Your task to perform on an android device: turn on translation in the chrome app Image 0: 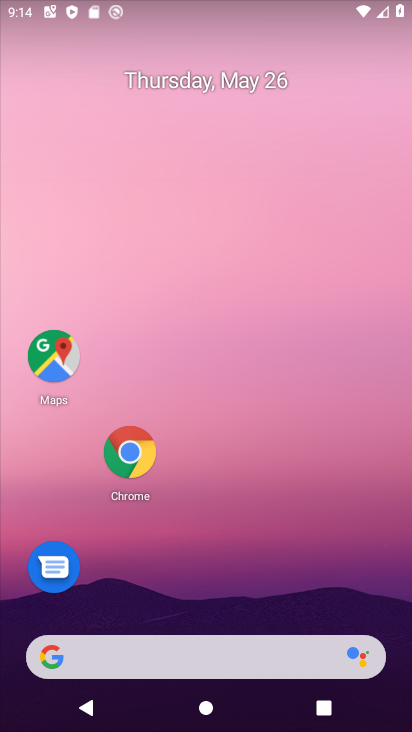
Step 0: press home button
Your task to perform on an android device: turn on translation in the chrome app Image 1: 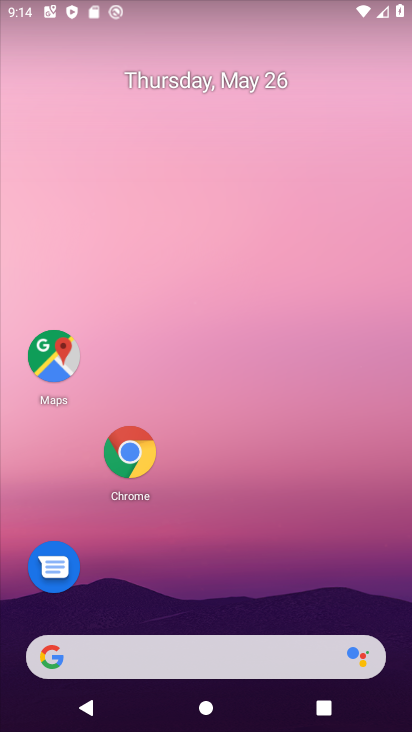
Step 1: click (142, 457)
Your task to perform on an android device: turn on translation in the chrome app Image 2: 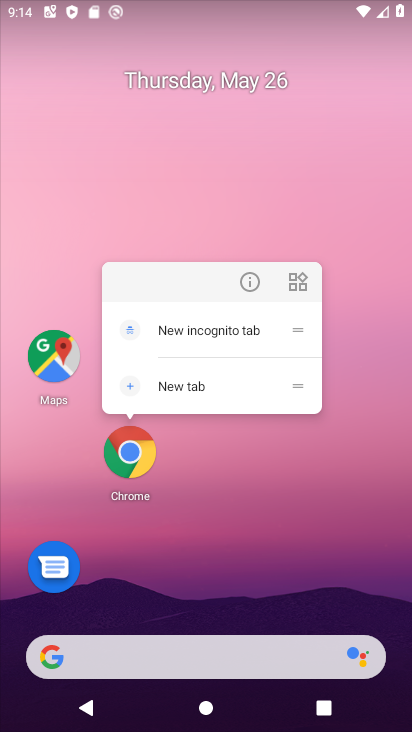
Step 2: click (136, 453)
Your task to perform on an android device: turn on translation in the chrome app Image 3: 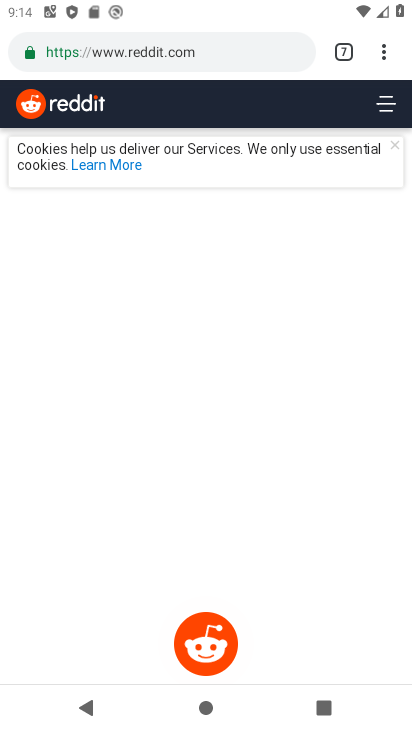
Step 3: drag from (385, 58) to (241, 602)
Your task to perform on an android device: turn on translation in the chrome app Image 4: 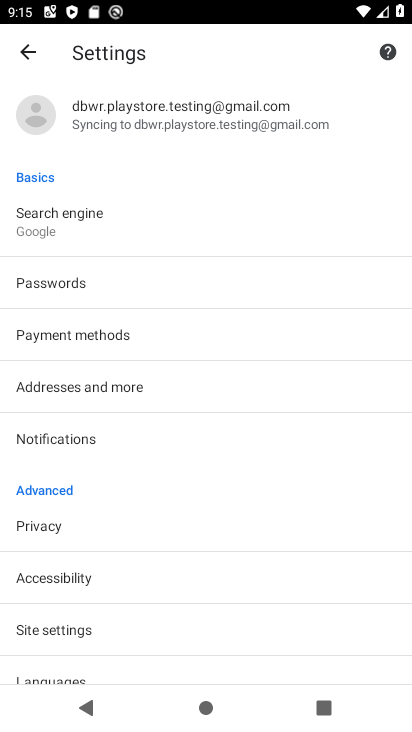
Step 4: drag from (169, 584) to (272, 433)
Your task to perform on an android device: turn on translation in the chrome app Image 5: 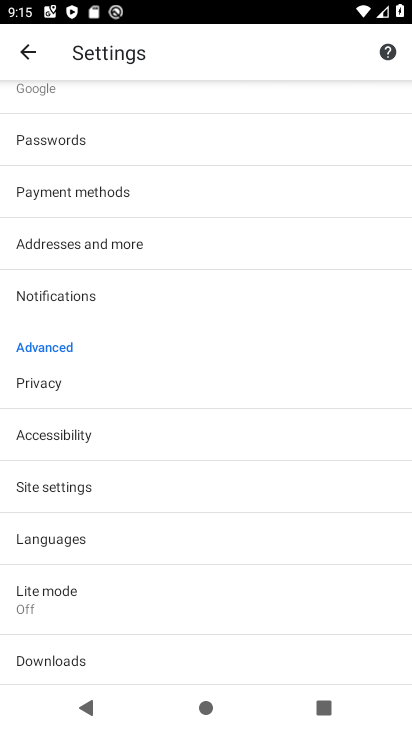
Step 5: click (66, 538)
Your task to perform on an android device: turn on translation in the chrome app Image 6: 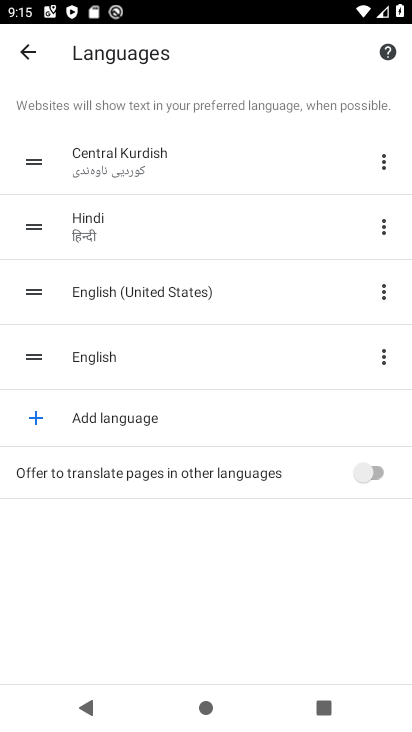
Step 6: click (378, 465)
Your task to perform on an android device: turn on translation in the chrome app Image 7: 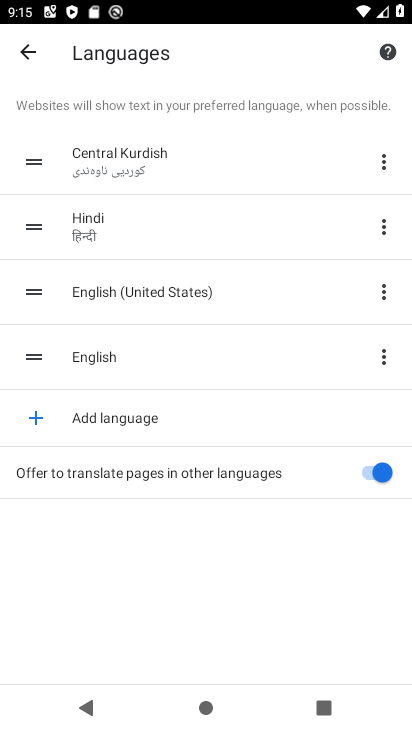
Step 7: task complete